Your task to perform on an android device: turn off location history Image 0: 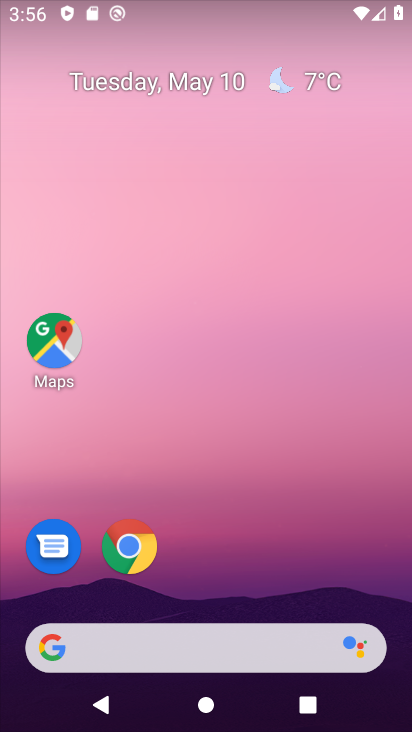
Step 0: click (64, 343)
Your task to perform on an android device: turn off location history Image 1: 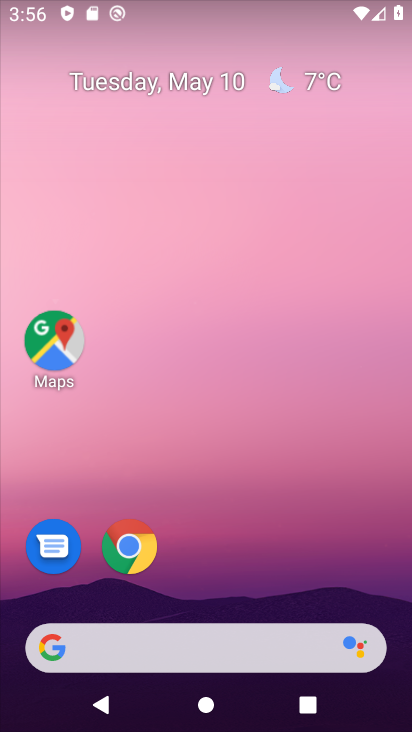
Step 1: click (64, 343)
Your task to perform on an android device: turn off location history Image 2: 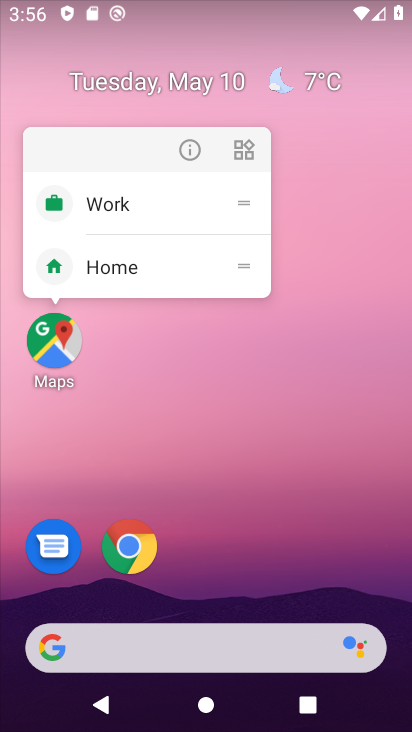
Step 2: click (72, 351)
Your task to perform on an android device: turn off location history Image 3: 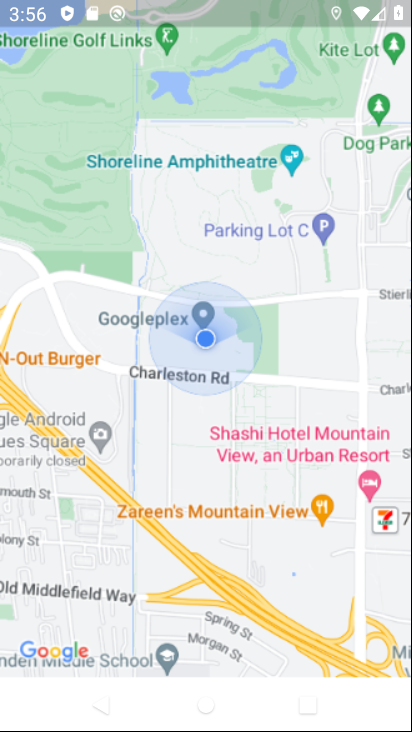
Step 3: click (61, 351)
Your task to perform on an android device: turn off location history Image 4: 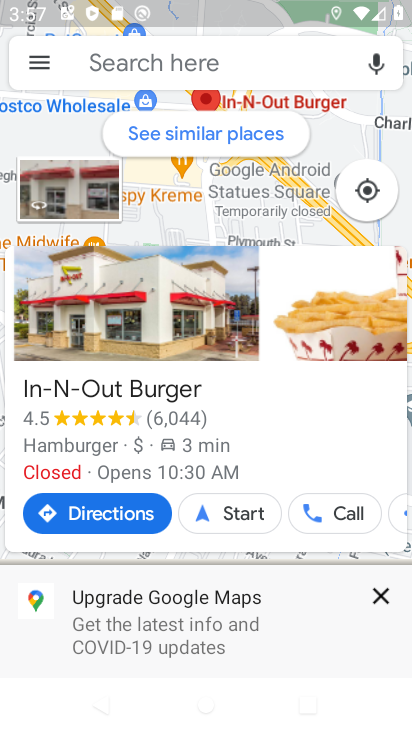
Step 4: click (43, 62)
Your task to perform on an android device: turn off location history Image 5: 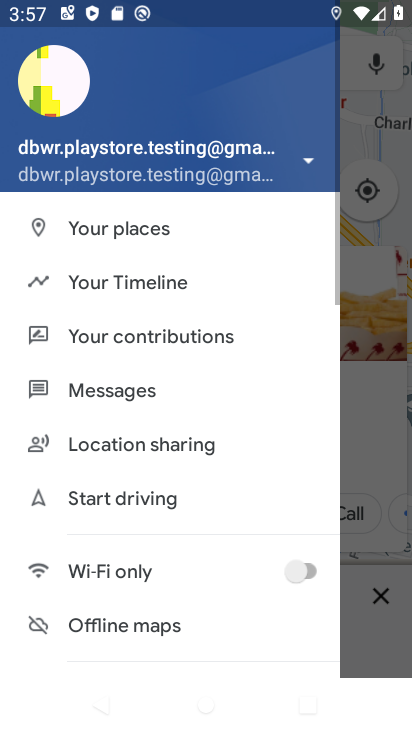
Step 5: click (42, 63)
Your task to perform on an android device: turn off location history Image 6: 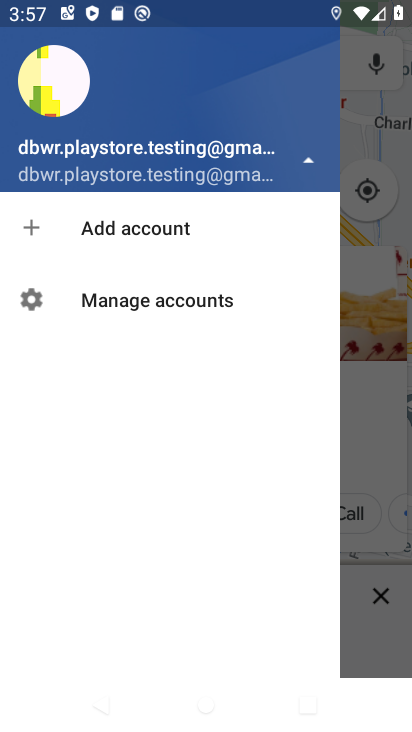
Step 6: click (303, 160)
Your task to perform on an android device: turn off location history Image 7: 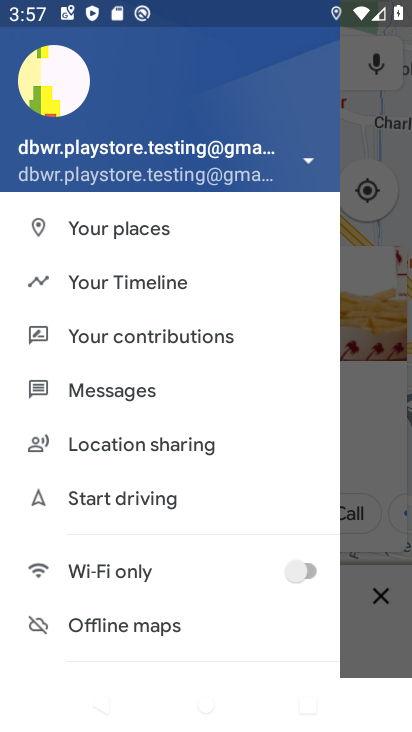
Step 7: click (92, 284)
Your task to perform on an android device: turn off location history Image 8: 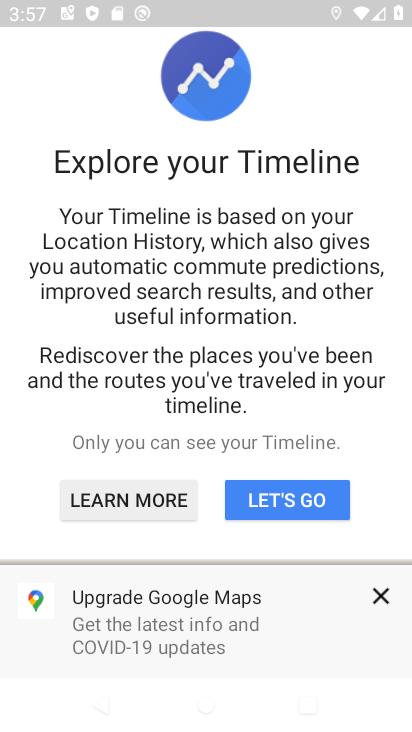
Step 8: click (284, 507)
Your task to perform on an android device: turn off location history Image 9: 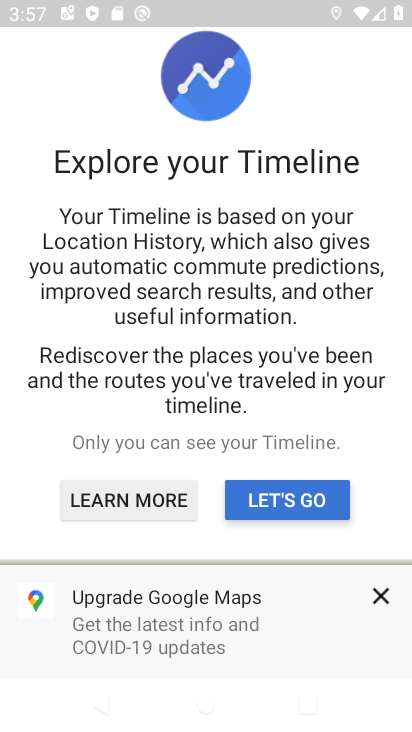
Step 9: click (285, 507)
Your task to perform on an android device: turn off location history Image 10: 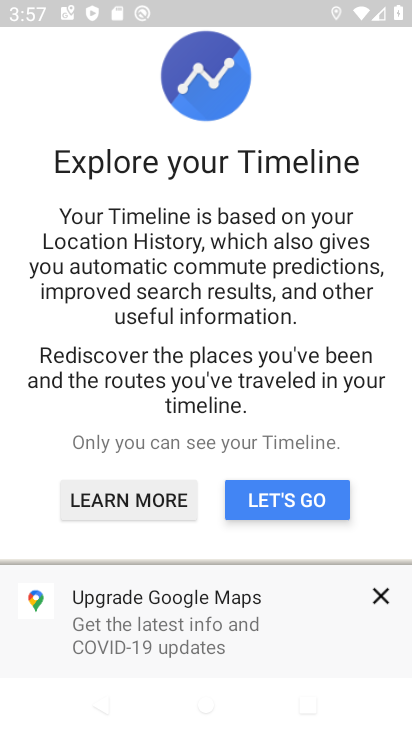
Step 10: click (285, 507)
Your task to perform on an android device: turn off location history Image 11: 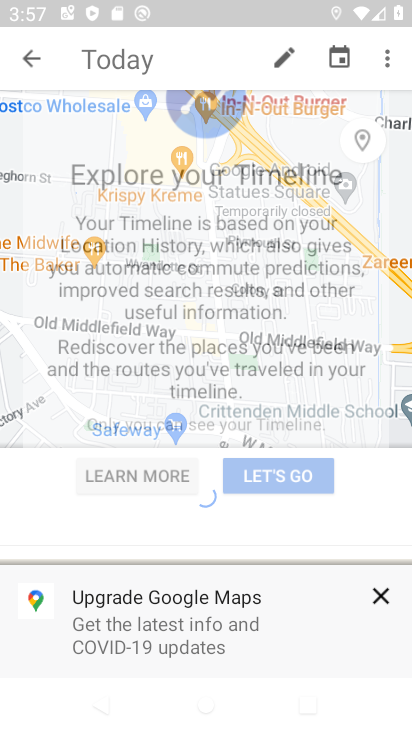
Step 11: click (287, 505)
Your task to perform on an android device: turn off location history Image 12: 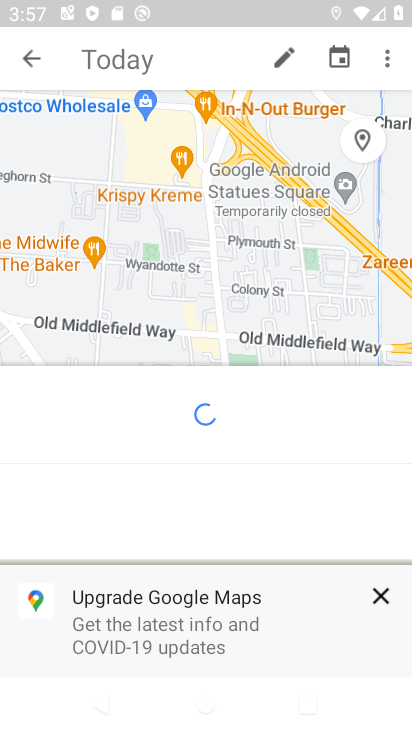
Step 12: click (287, 504)
Your task to perform on an android device: turn off location history Image 13: 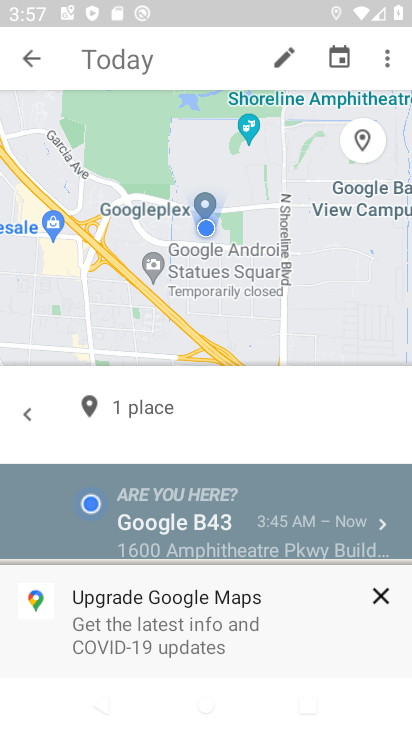
Step 13: drag from (382, 62) to (279, 382)
Your task to perform on an android device: turn off location history Image 14: 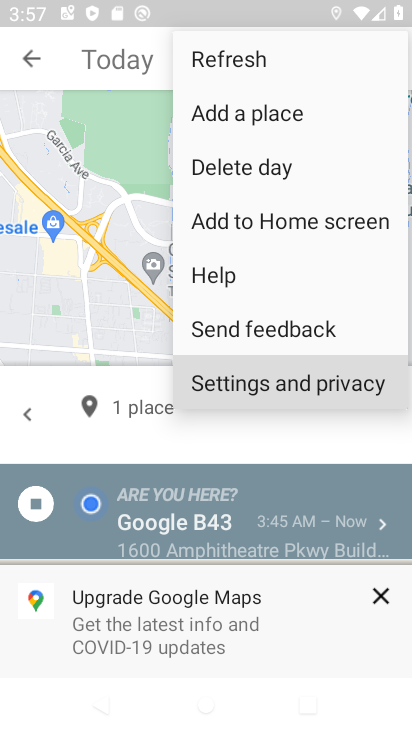
Step 14: click (279, 382)
Your task to perform on an android device: turn off location history Image 15: 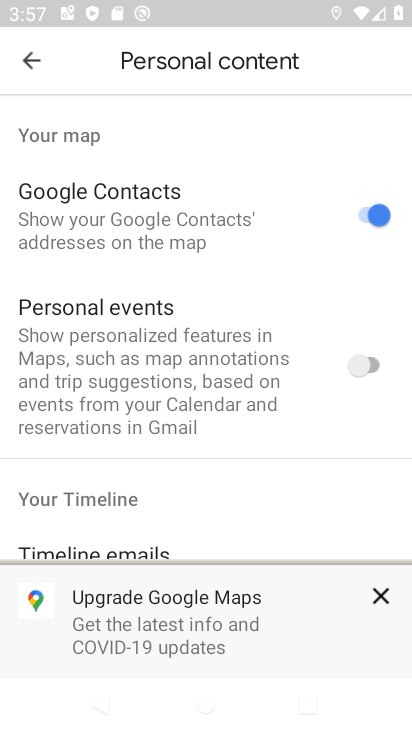
Step 15: drag from (210, 469) to (122, 138)
Your task to perform on an android device: turn off location history Image 16: 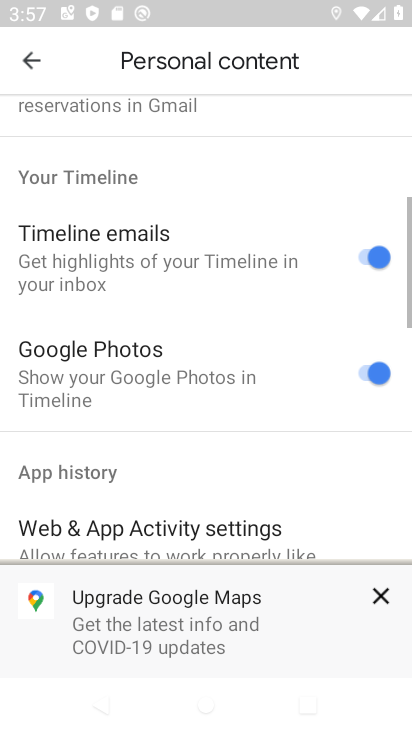
Step 16: drag from (160, 411) to (127, 119)
Your task to perform on an android device: turn off location history Image 17: 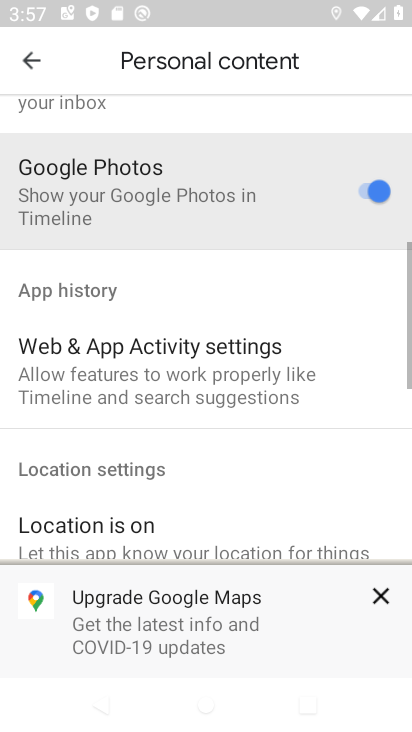
Step 17: drag from (146, 383) to (122, 123)
Your task to perform on an android device: turn off location history Image 18: 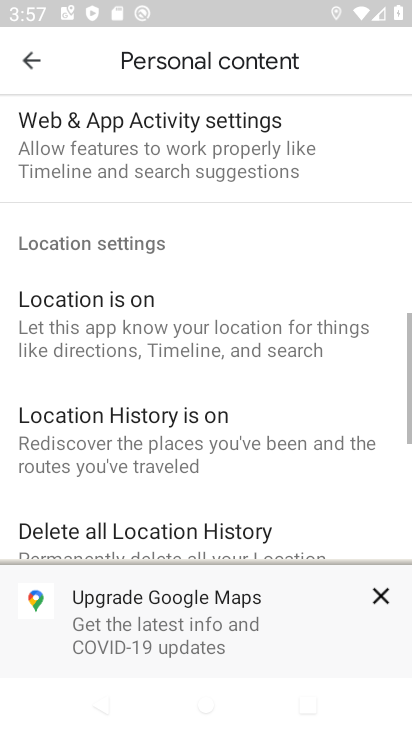
Step 18: drag from (173, 395) to (154, 86)
Your task to perform on an android device: turn off location history Image 19: 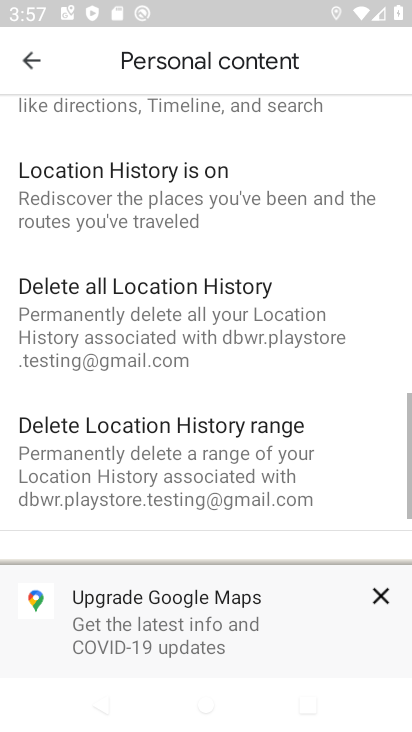
Step 19: drag from (191, 376) to (221, 37)
Your task to perform on an android device: turn off location history Image 20: 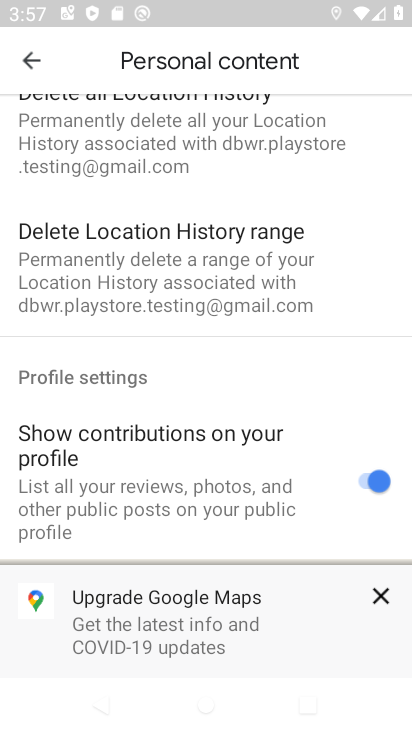
Step 20: drag from (192, 406) to (159, 159)
Your task to perform on an android device: turn off location history Image 21: 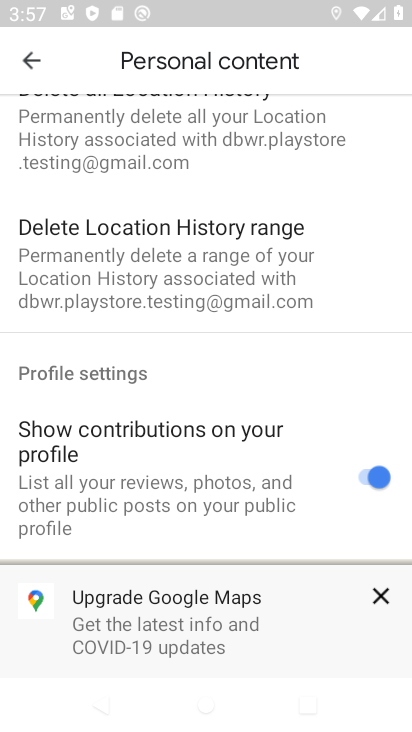
Step 21: drag from (131, 453) to (143, 135)
Your task to perform on an android device: turn off location history Image 22: 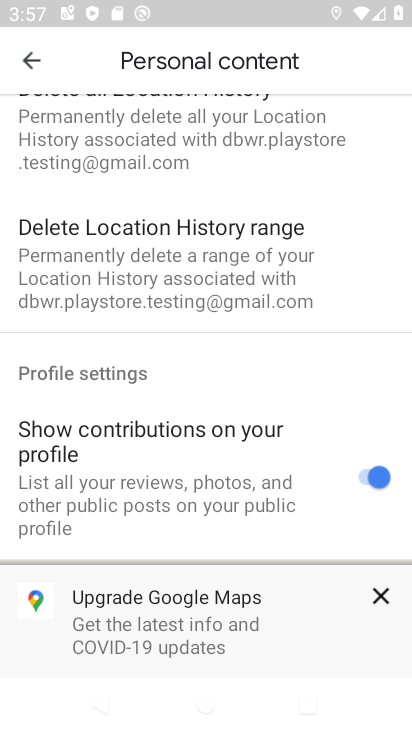
Step 22: drag from (172, 489) to (134, 146)
Your task to perform on an android device: turn off location history Image 23: 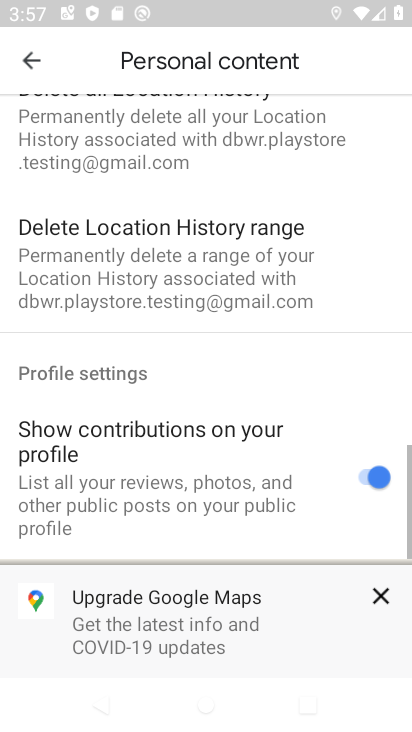
Step 23: drag from (177, 390) to (162, 92)
Your task to perform on an android device: turn off location history Image 24: 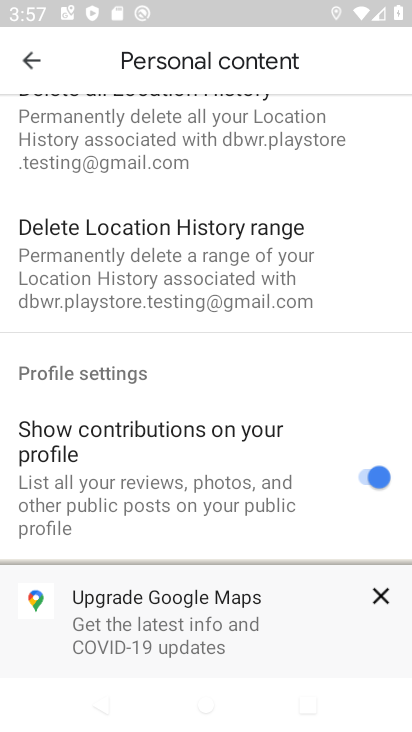
Step 24: drag from (84, 234) to (94, 465)
Your task to perform on an android device: turn off location history Image 25: 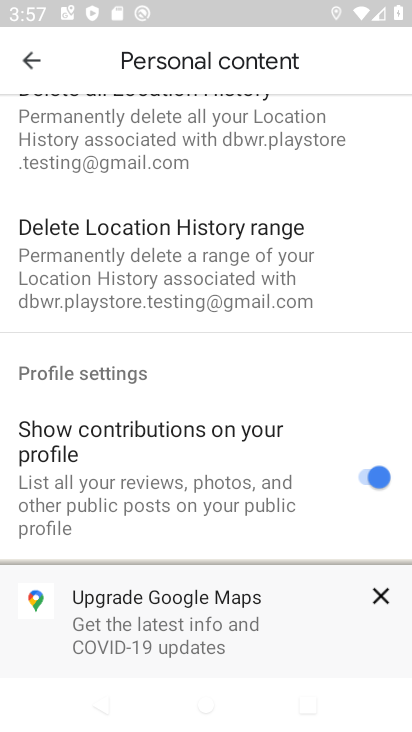
Step 25: drag from (119, 310) to (174, 545)
Your task to perform on an android device: turn off location history Image 26: 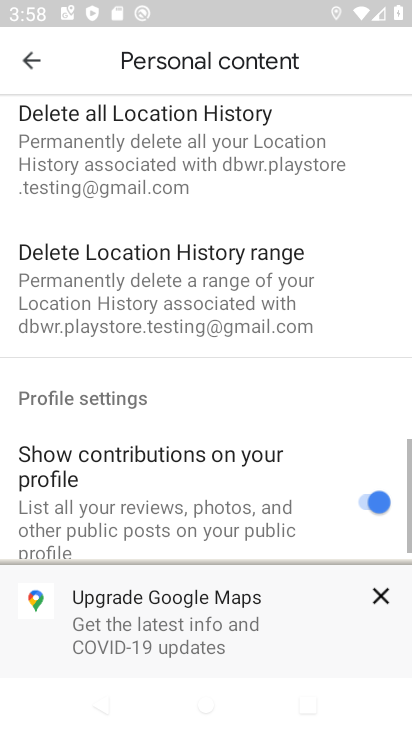
Step 26: drag from (184, 356) to (200, 478)
Your task to perform on an android device: turn off location history Image 27: 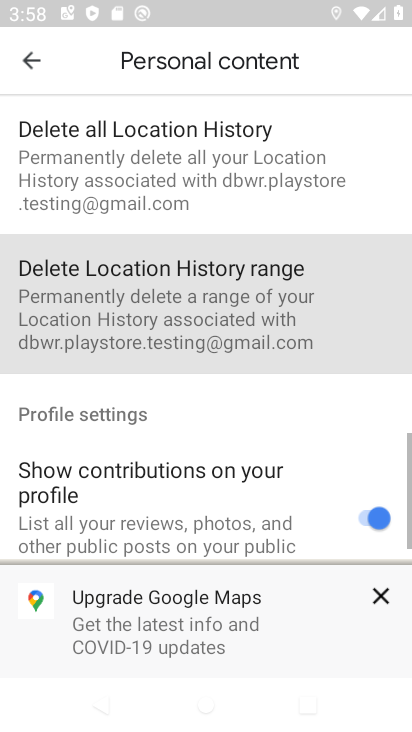
Step 27: drag from (120, 241) to (127, 500)
Your task to perform on an android device: turn off location history Image 28: 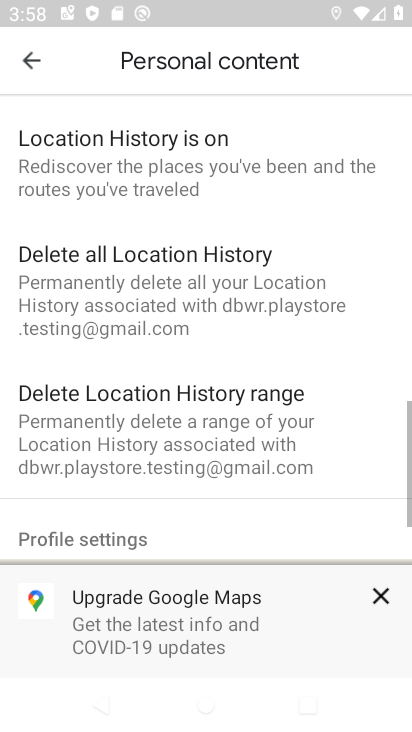
Step 28: drag from (83, 218) to (146, 617)
Your task to perform on an android device: turn off location history Image 29: 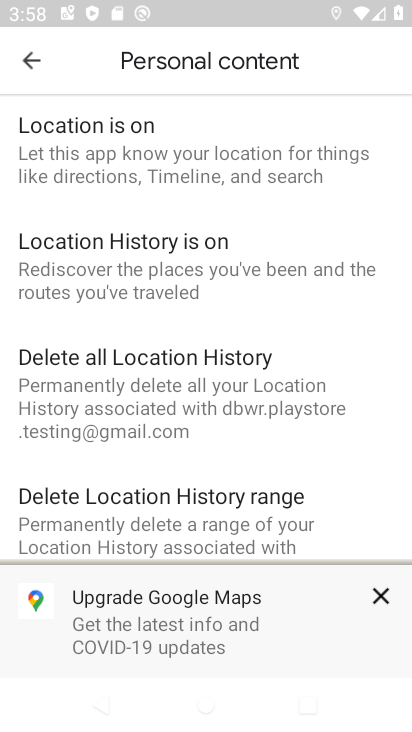
Step 29: click (127, 262)
Your task to perform on an android device: turn off location history Image 30: 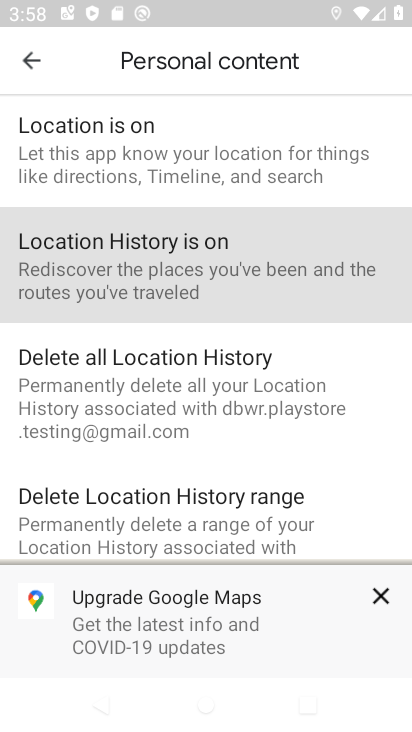
Step 30: click (131, 265)
Your task to perform on an android device: turn off location history Image 31: 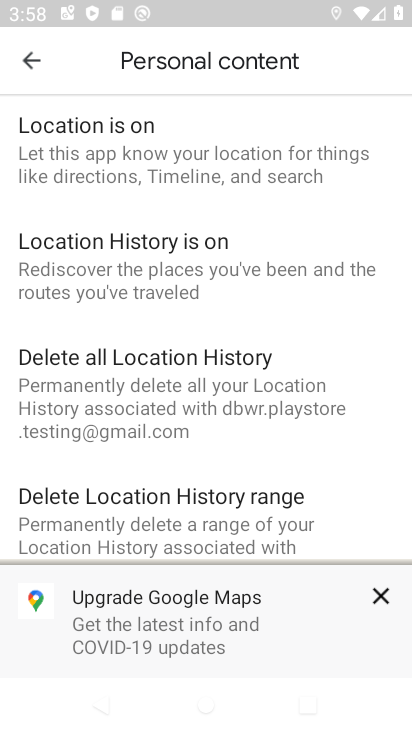
Step 31: click (131, 265)
Your task to perform on an android device: turn off location history Image 32: 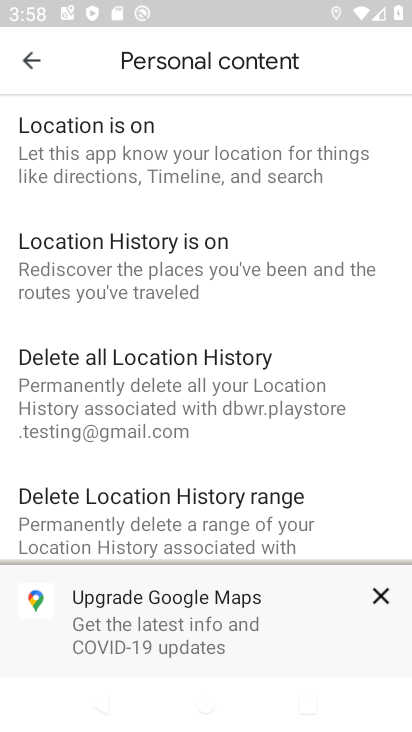
Step 32: click (132, 266)
Your task to perform on an android device: turn off location history Image 33: 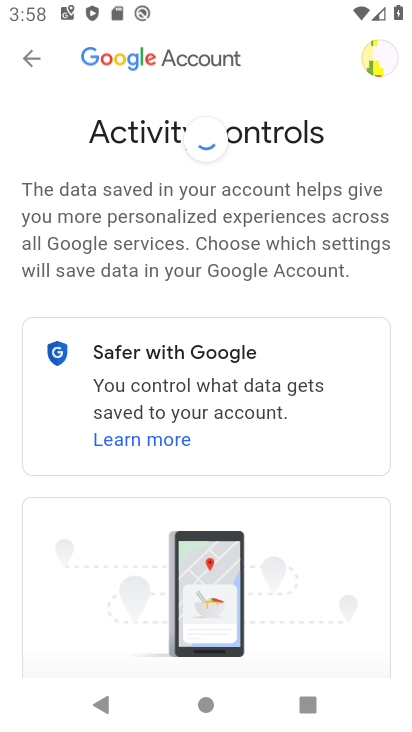
Step 33: drag from (294, 577) to (280, 186)
Your task to perform on an android device: turn off location history Image 34: 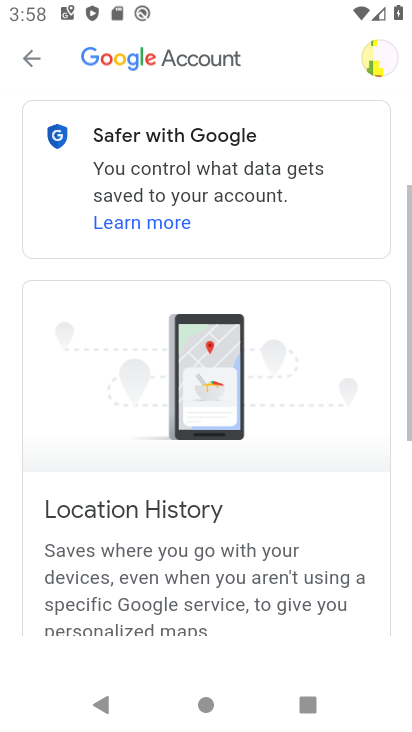
Step 34: drag from (297, 421) to (246, 103)
Your task to perform on an android device: turn off location history Image 35: 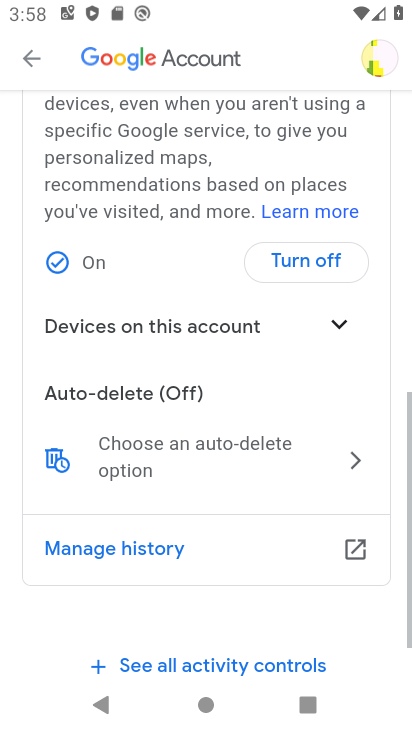
Step 35: drag from (220, 428) to (201, 74)
Your task to perform on an android device: turn off location history Image 36: 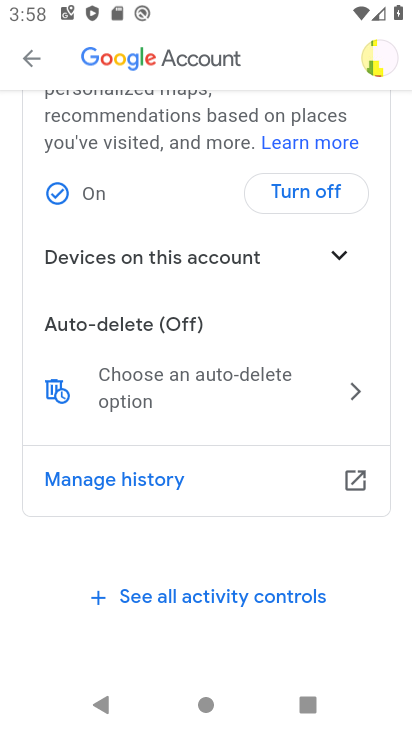
Step 36: click (313, 196)
Your task to perform on an android device: turn off location history Image 37: 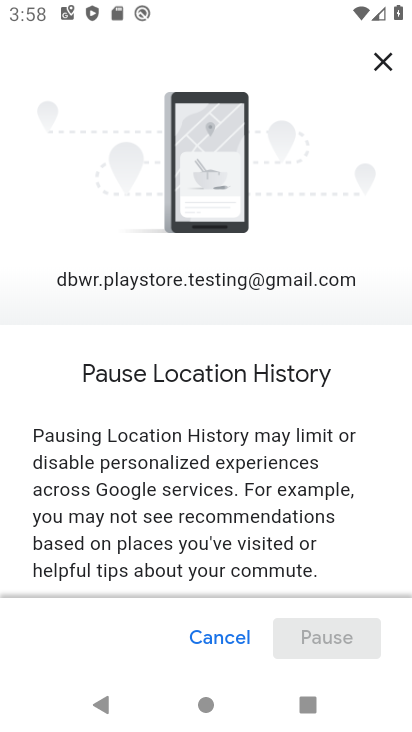
Step 37: task complete